Your task to perform on an android device: open app "Pandora - Music & Podcasts" (install if not already installed) Image 0: 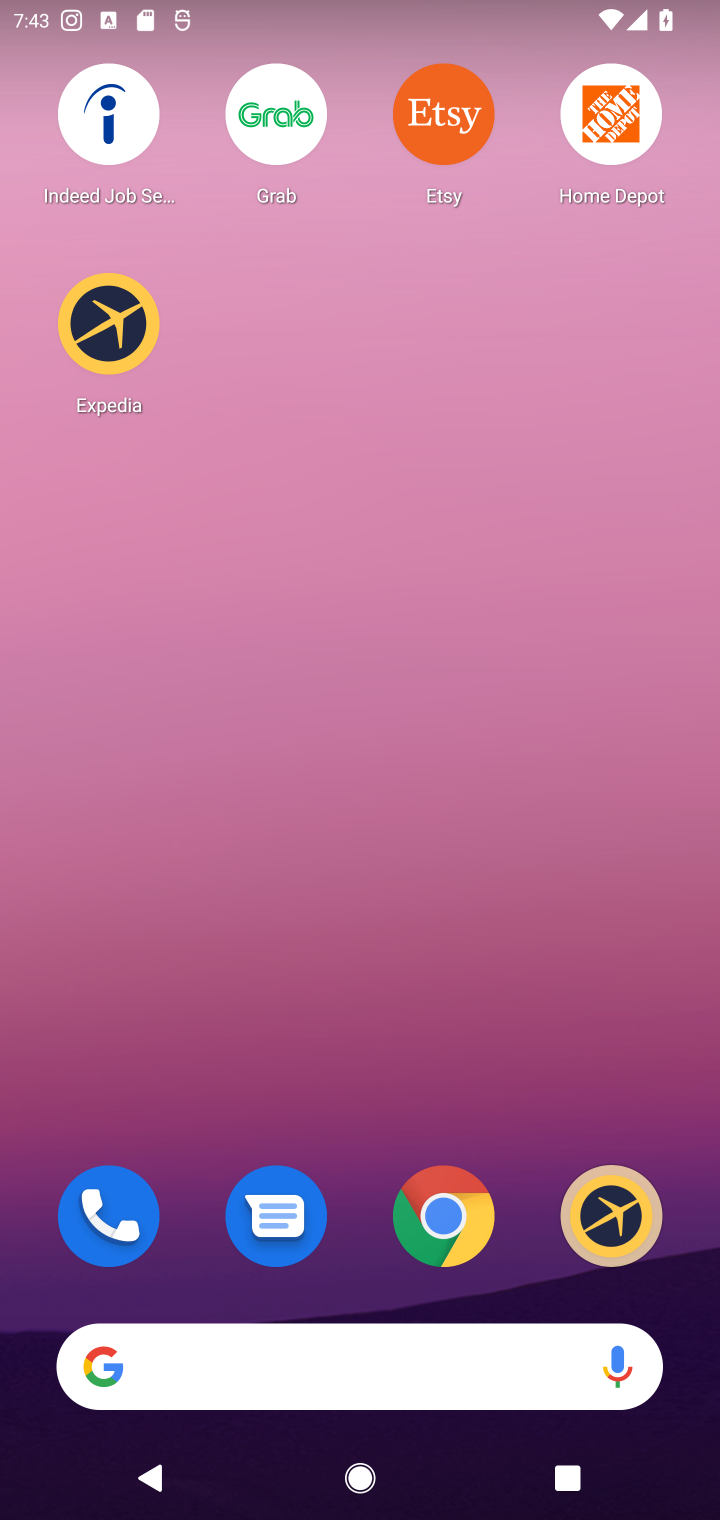
Step 0: drag from (338, 1021) to (360, 190)
Your task to perform on an android device: open app "Pandora - Music & Podcasts" (install if not already installed) Image 1: 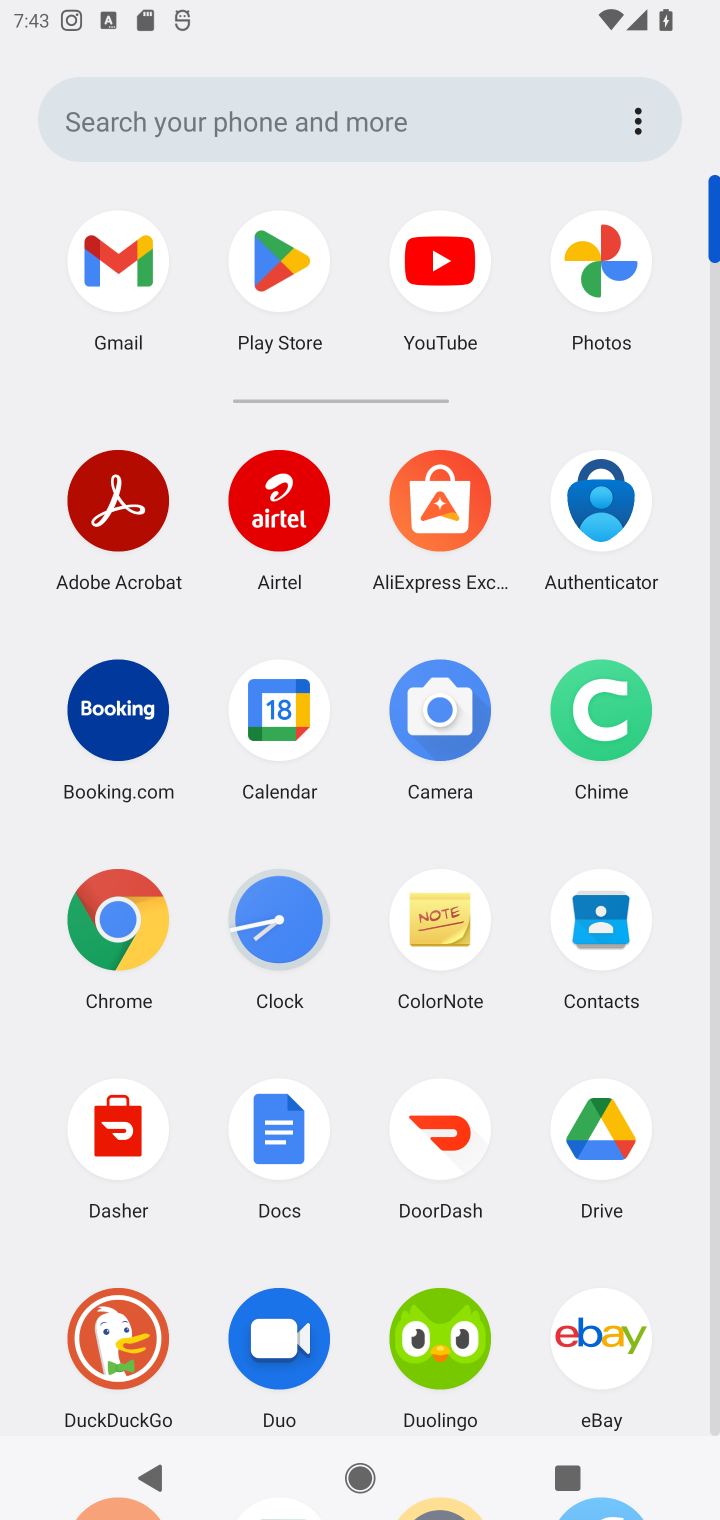
Step 1: click (310, 244)
Your task to perform on an android device: open app "Pandora - Music & Podcasts" (install if not already installed) Image 2: 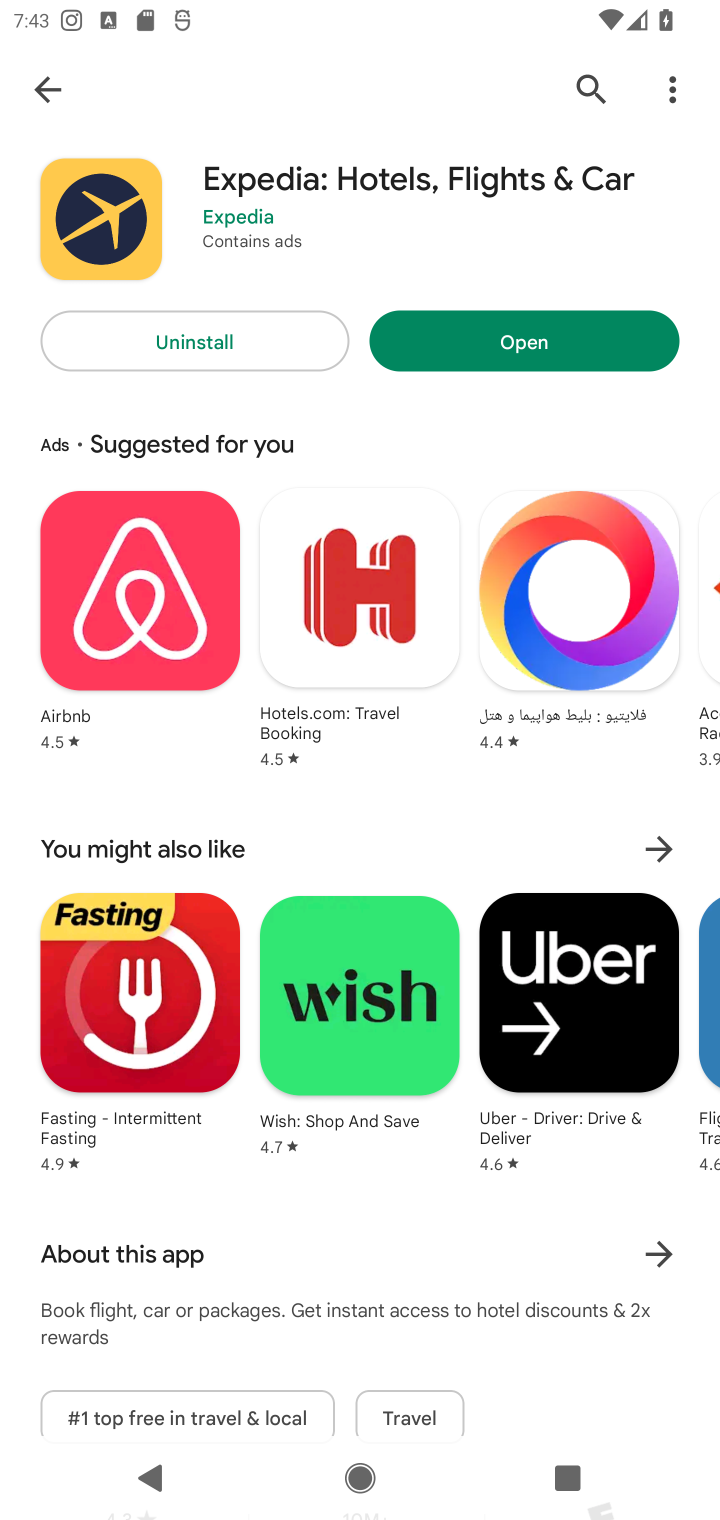
Step 2: click (597, 90)
Your task to perform on an android device: open app "Pandora - Music & Podcasts" (install if not already installed) Image 3: 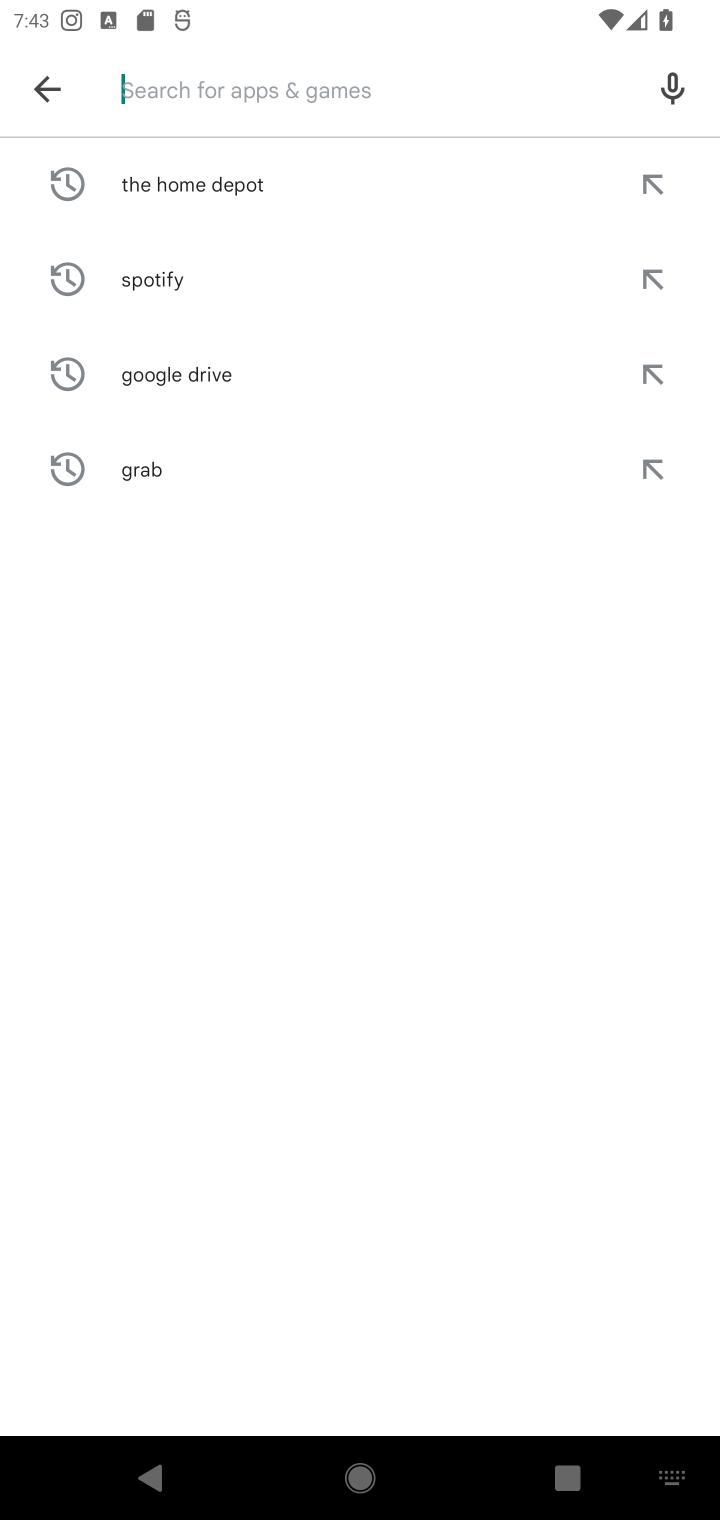
Step 3: type "Pandora - Music & Podcast"
Your task to perform on an android device: open app "Pandora - Music & Podcasts" (install if not already installed) Image 4: 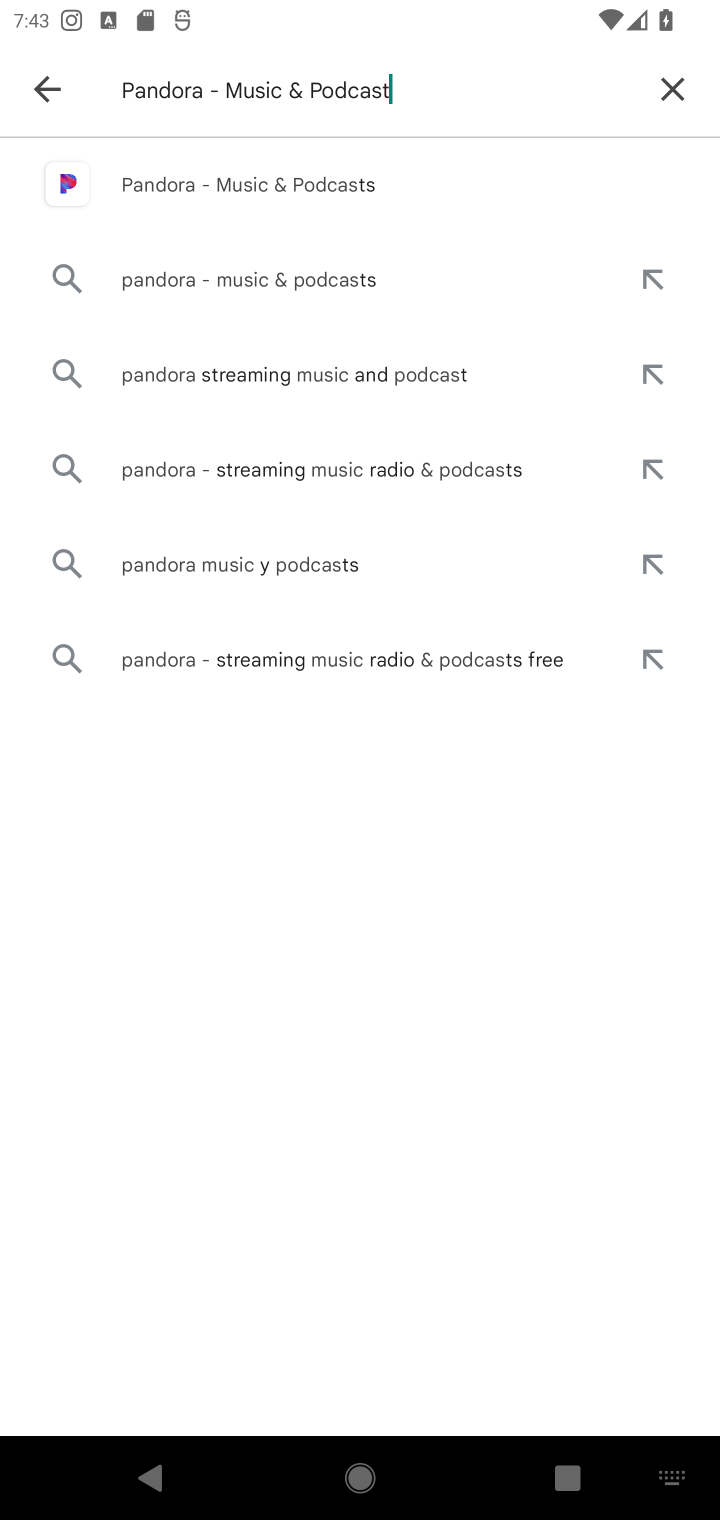
Step 4: type ""
Your task to perform on an android device: open app "Pandora - Music & Podcasts" (install if not already installed) Image 5: 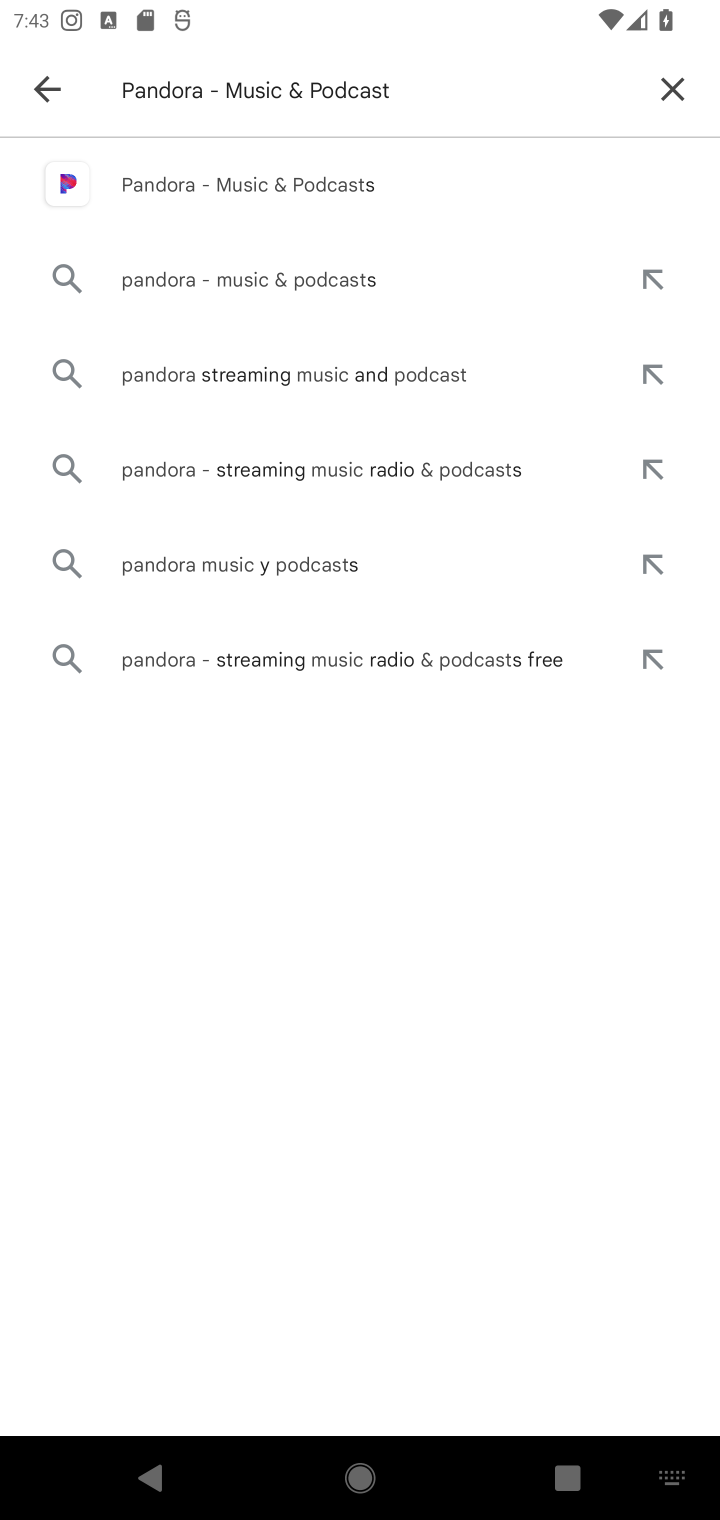
Step 5: click (251, 184)
Your task to perform on an android device: open app "Pandora - Music & Podcasts" (install if not already installed) Image 6: 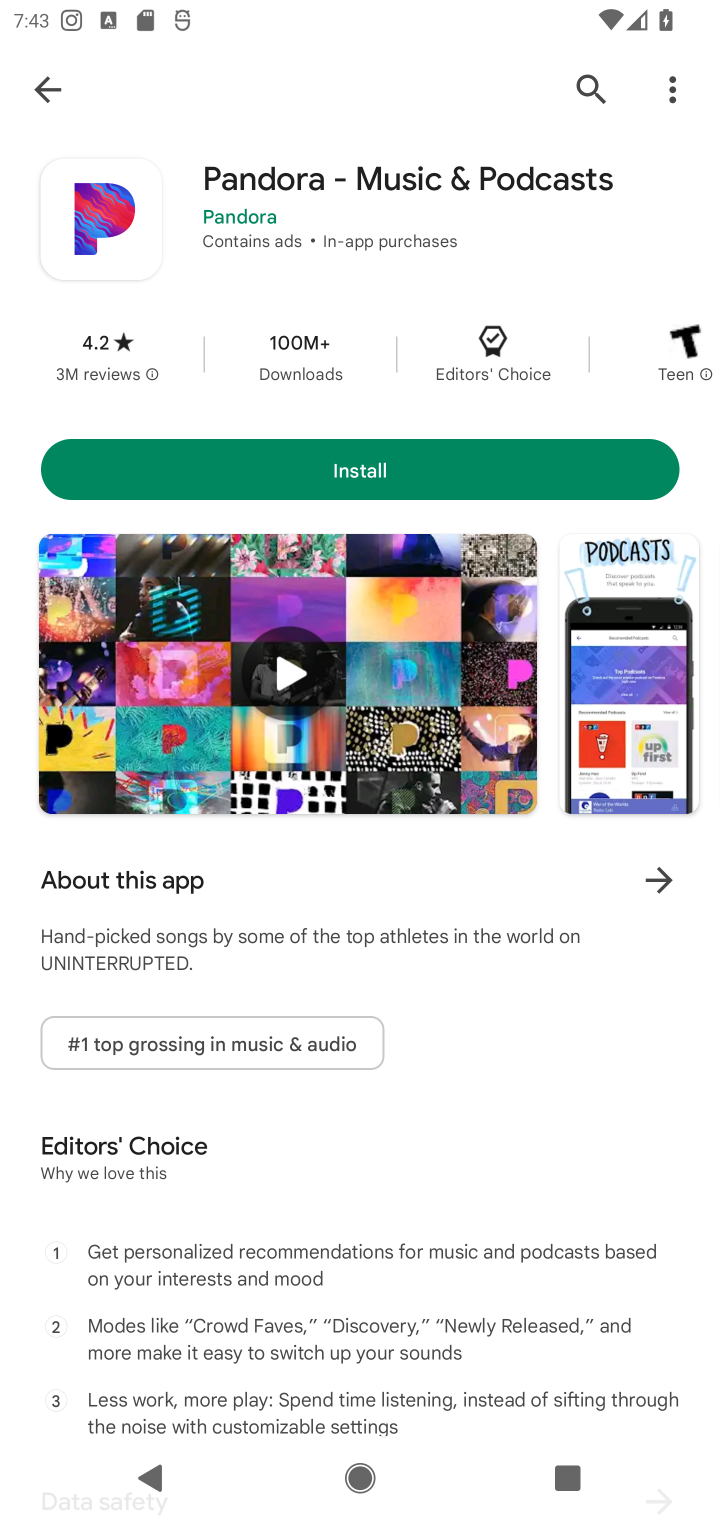
Step 6: click (300, 443)
Your task to perform on an android device: open app "Pandora - Music & Podcasts" (install if not already installed) Image 7: 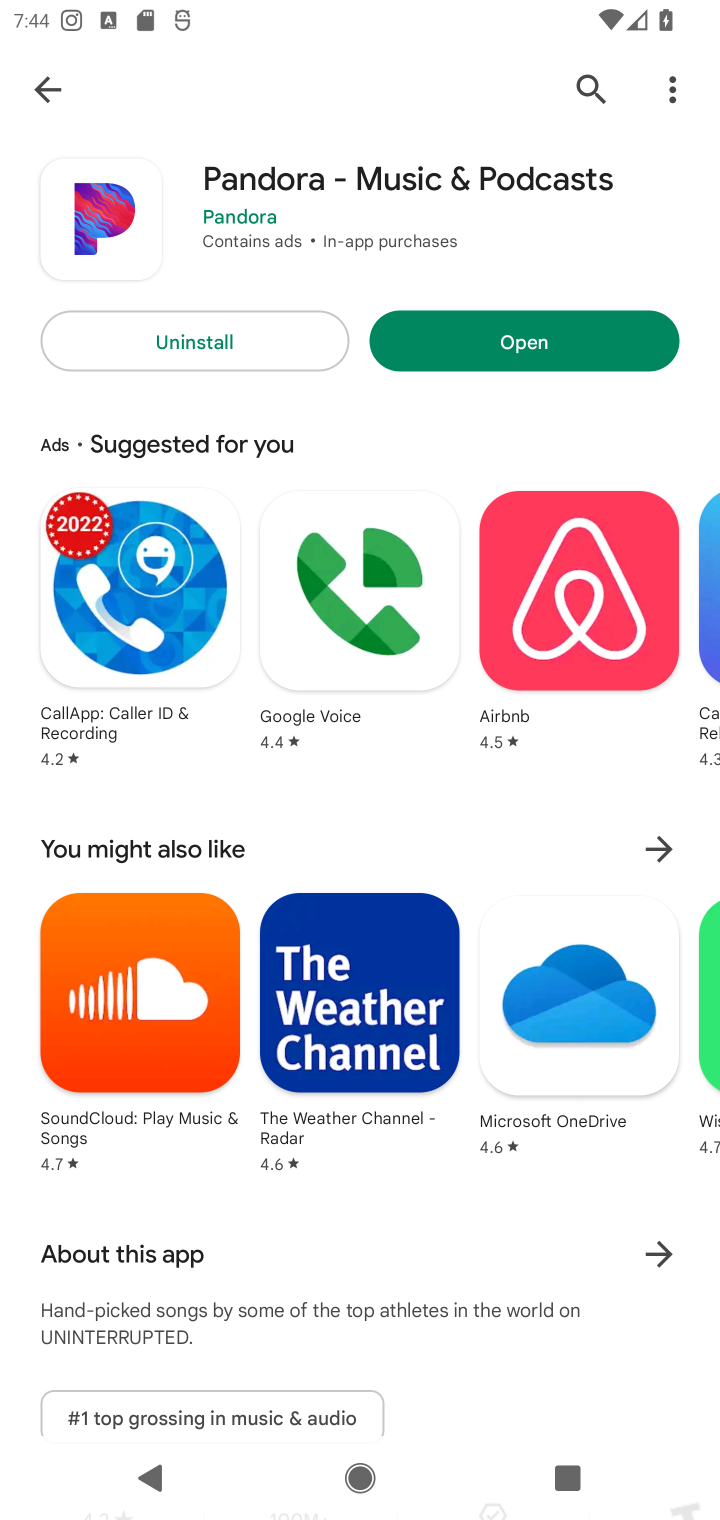
Step 7: click (560, 355)
Your task to perform on an android device: open app "Pandora - Music & Podcasts" (install if not already installed) Image 8: 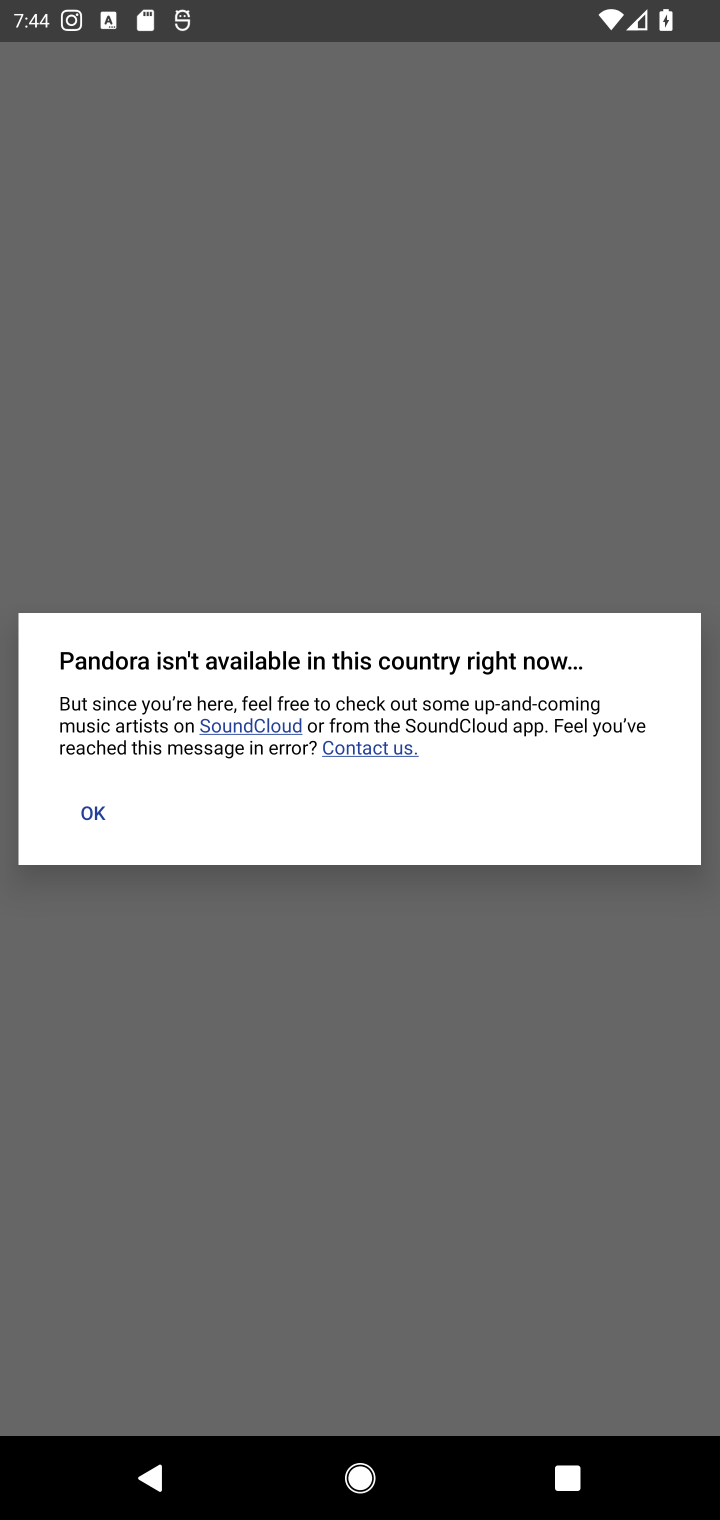
Step 8: task complete